Your task to perform on an android device: find which apps use the phone's location Image 0: 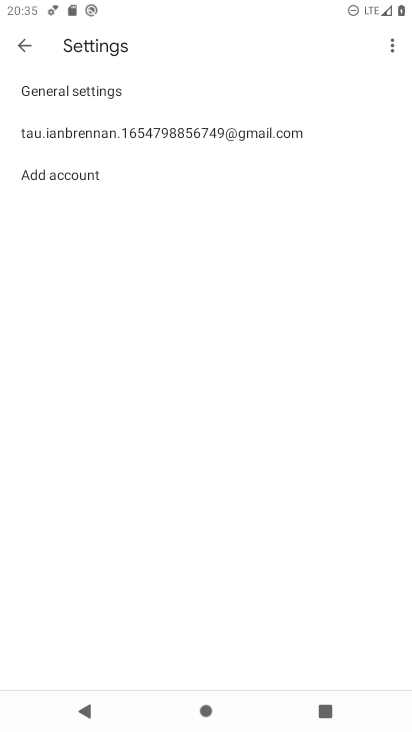
Step 0: press home button
Your task to perform on an android device: find which apps use the phone's location Image 1: 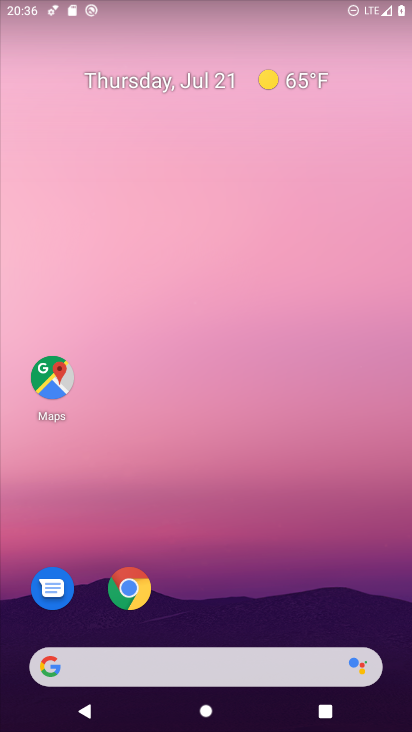
Step 1: drag from (170, 623) to (116, 2)
Your task to perform on an android device: find which apps use the phone's location Image 2: 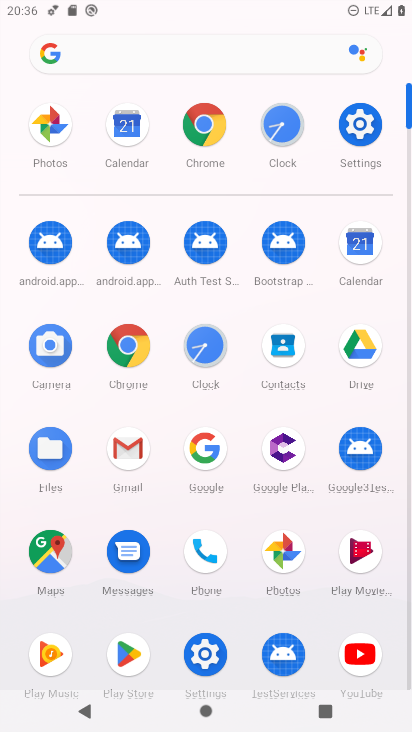
Step 2: click (351, 126)
Your task to perform on an android device: find which apps use the phone's location Image 3: 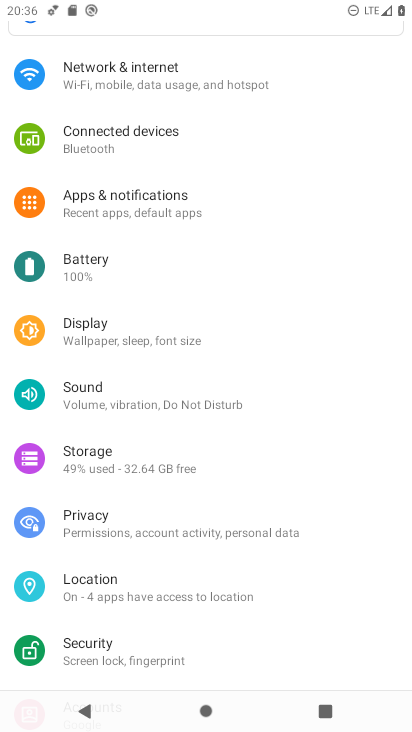
Step 3: click (109, 591)
Your task to perform on an android device: find which apps use the phone's location Image 4: 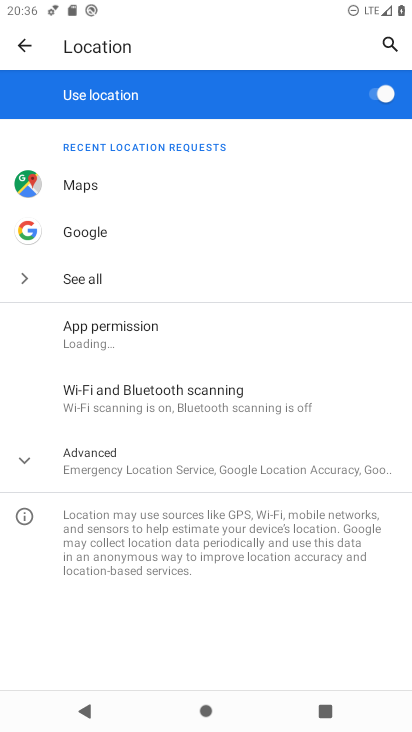
Step 4: click (100, 478)
Your task to perform on an android device: find which apps use the phone's location Image 5: 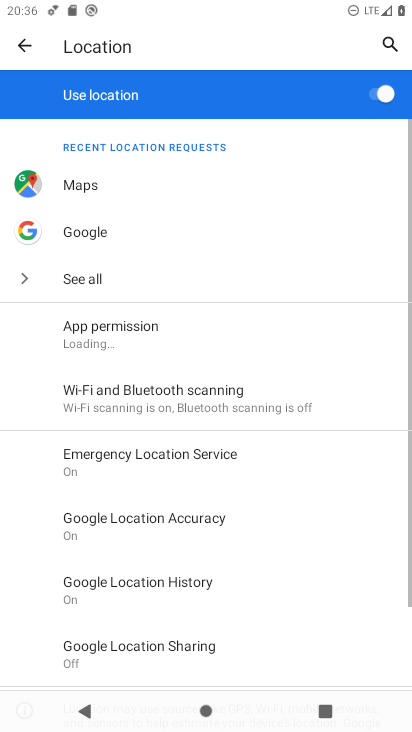
Step 5: click (92, 353)
Your task to perform on an android device: find which apps use the phone's location Image 6: 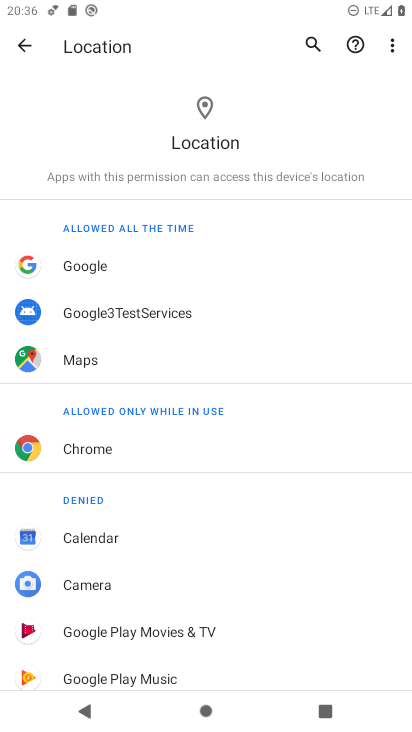
Step 6: task complete